Your task to perform on an android device: What's the weather going to be tomorrow? Image 0: 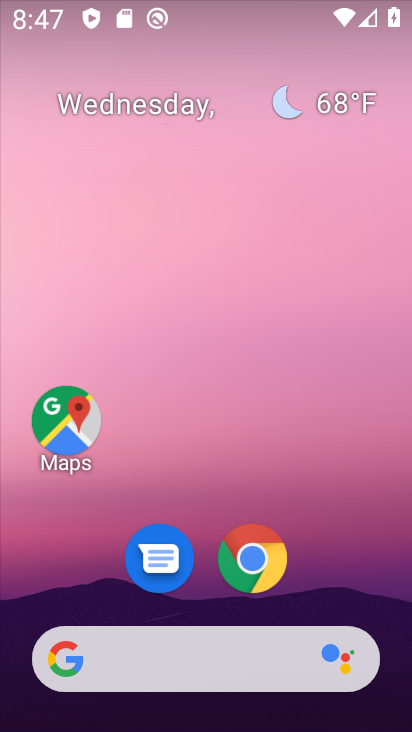
Step 0: drag from (380, 570) to (325, 171)
Your task to perform on an android device: What's the weather going to be tomorrow? Image 1: 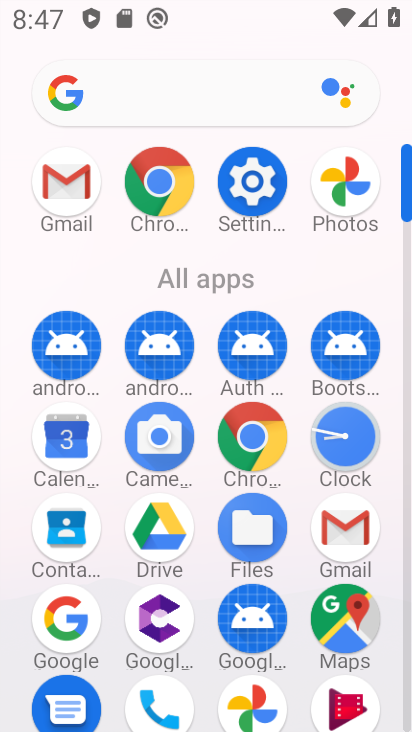
Step 1: click (159, 190)
Your task to perform on an android device: What's the weather going to be tomorrow? Image 2: 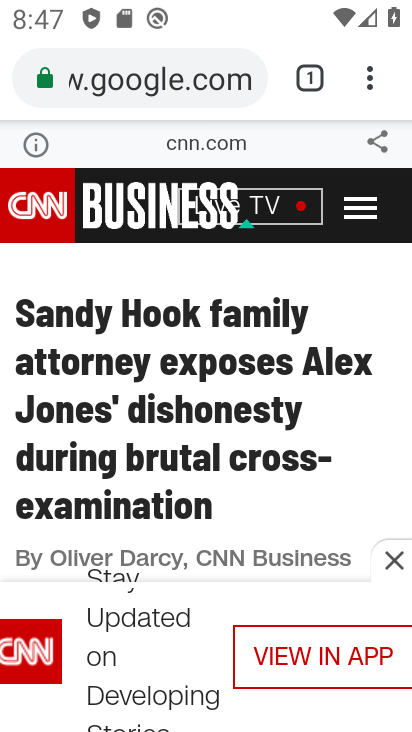
Step 2: click (195, 84)
Your task to perform on an android device: What's the weather going to be tomorrow? Image 3: 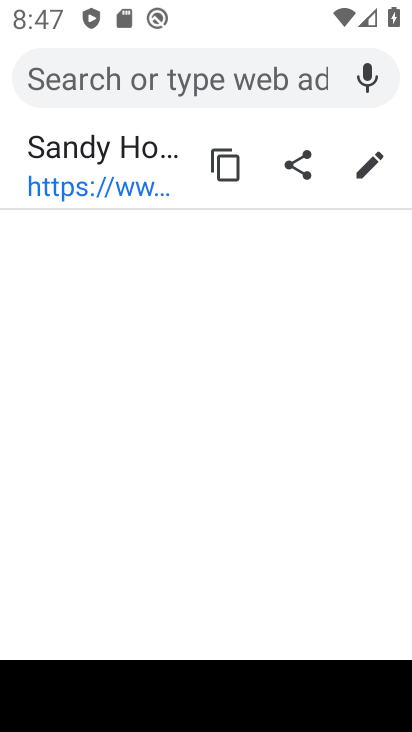
Step 3: type "What's the weather going to be tomorrow?"
Your task to perform on an android device: What's the weather going to be tomorrow? Image 4: 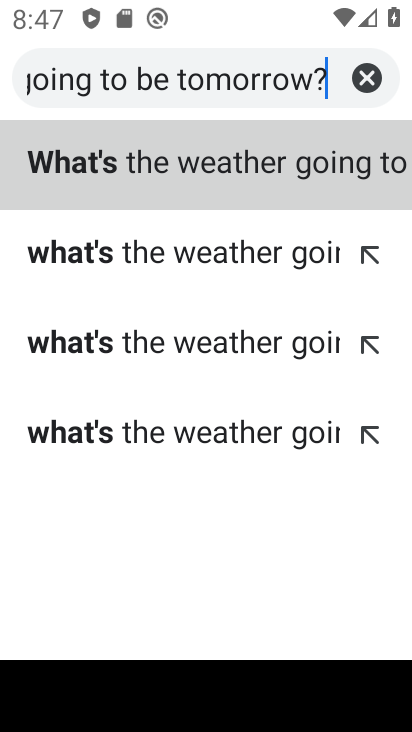
Step 4: click (308, 136)
Your task to perform on an android device: What's the weather going to be tomorrow? Image 5: 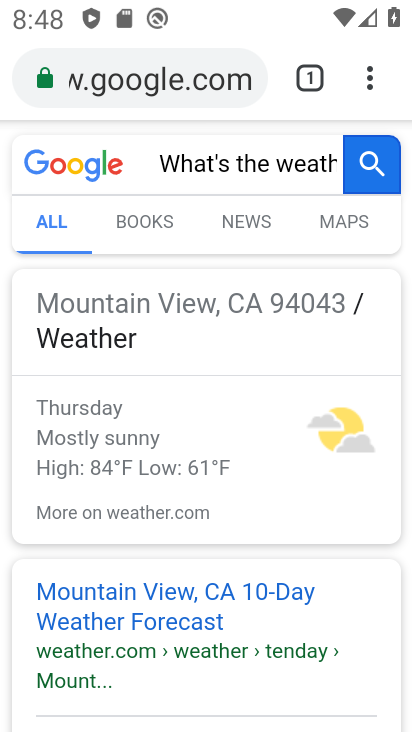
Step 5: task complete